Your task to perform on an android device: Open display settings Image 0: 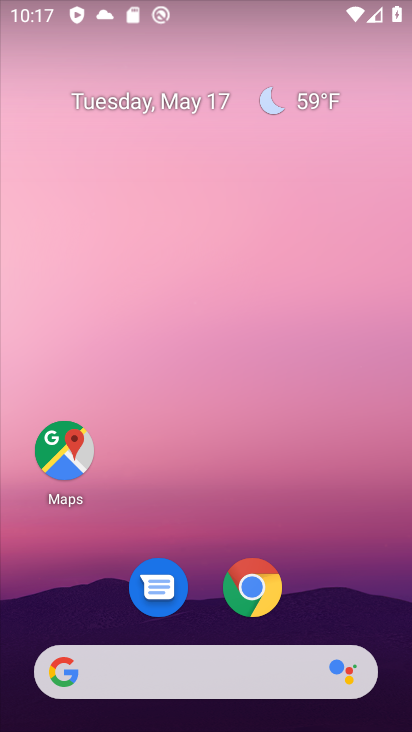
Step 0: drag from (327, 587) to (312, 99)
Your task to perform on an android device: Open display settings Image 1: 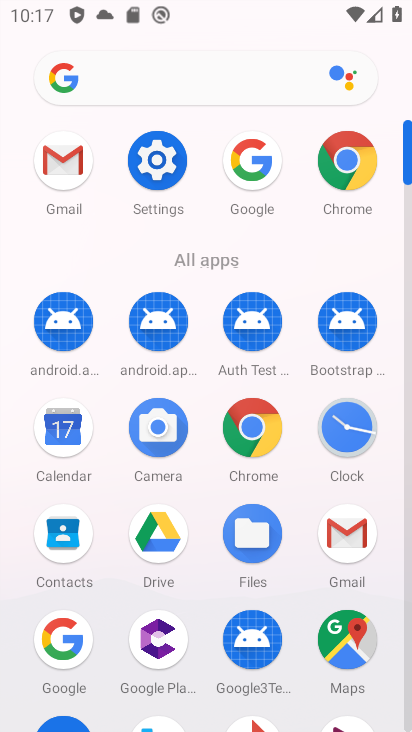
Step 1: click (161, 156)
Your task to perform on an android device: Open display settings Image 2: 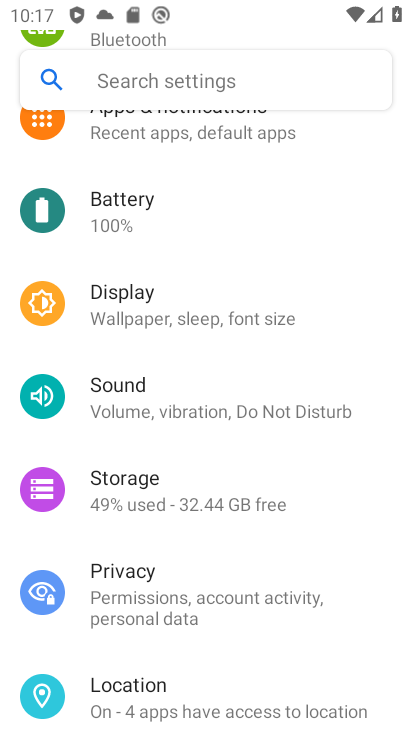
Step 2: click (172, 301)
Your task to perform on an android device: Open display settings Image 3: 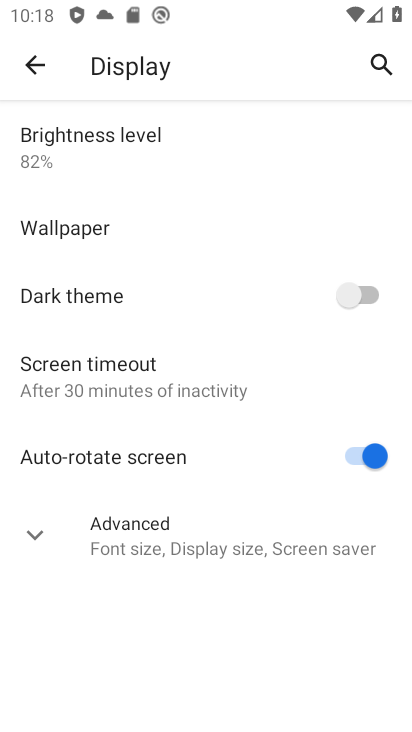
Step 3: task complete